Your task to perform on an android device: set an alarm Image 0: 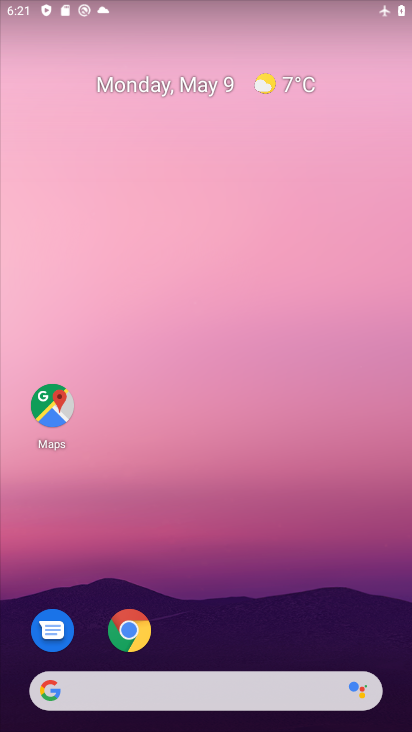
Step 0: drag from (236, 621) to (195, 111)
Your task to perform on an android device: set an alarm Image 1: 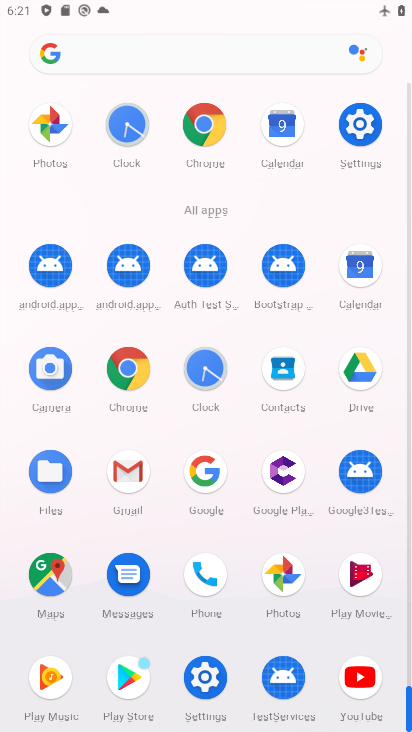
Step 1: click (202, 385)
Your task to perform on an android device: set an alarm Image 2: 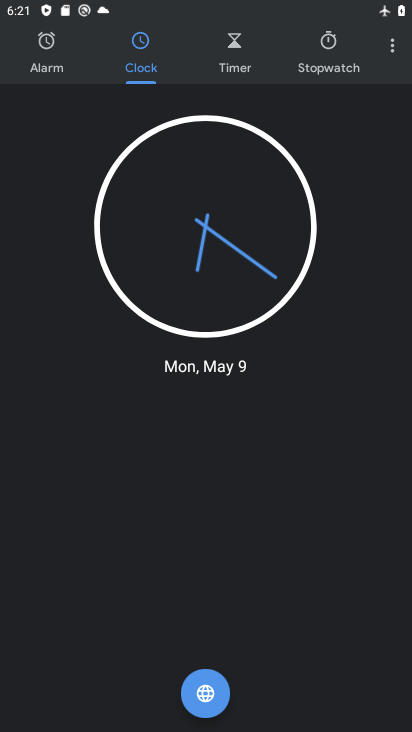
Step 2: click (395, 49)
Your task to perform on an android device: set an alarm Image 3: 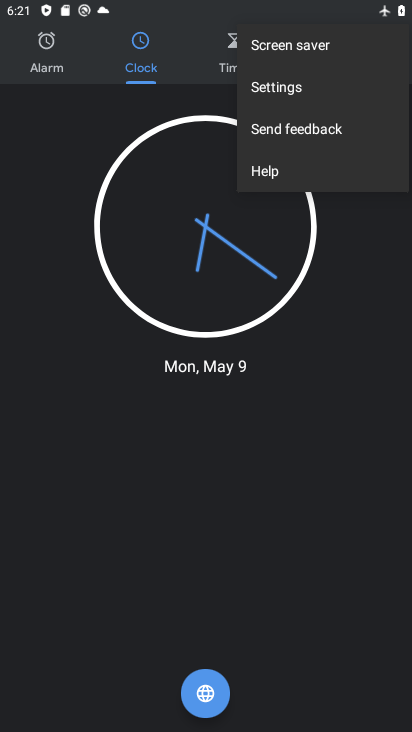
Step 3: click (50, 57)
Your task to perform on an android device: set an alarm Image 4: 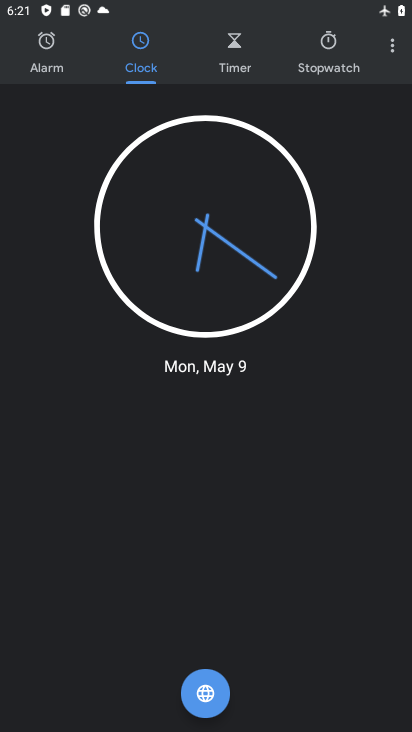
Step 4: click (50, 57)
Your task to perform on an android device: set an alarm Image 5: 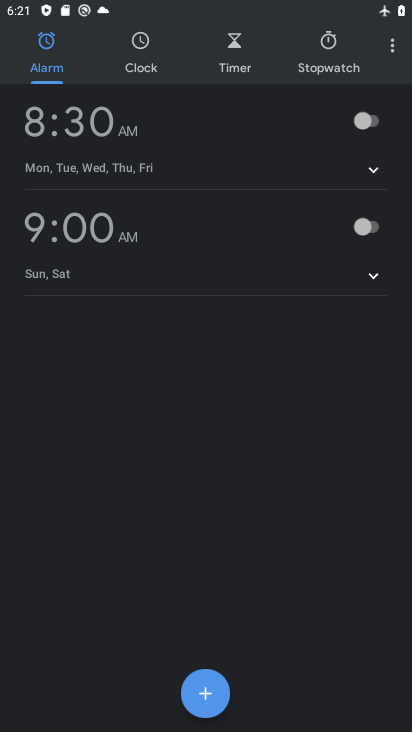
Step 5: click (371, 124)
Your task to perform on an android device: set an alarm Image 6: 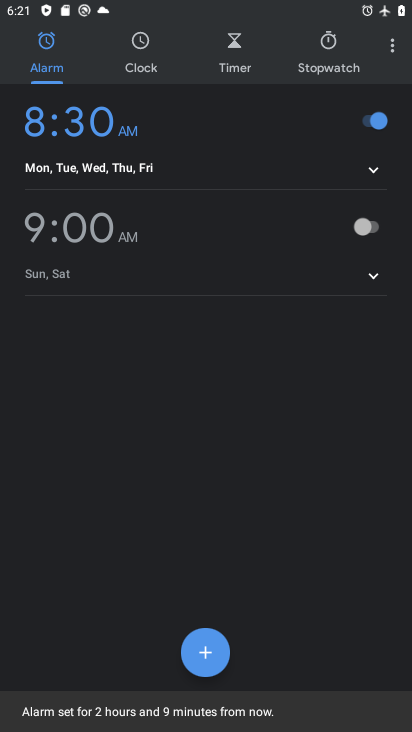
Step 6: task complete